Your task to perform on an android device: remove spam from my inbox in the gmail app Image 0: 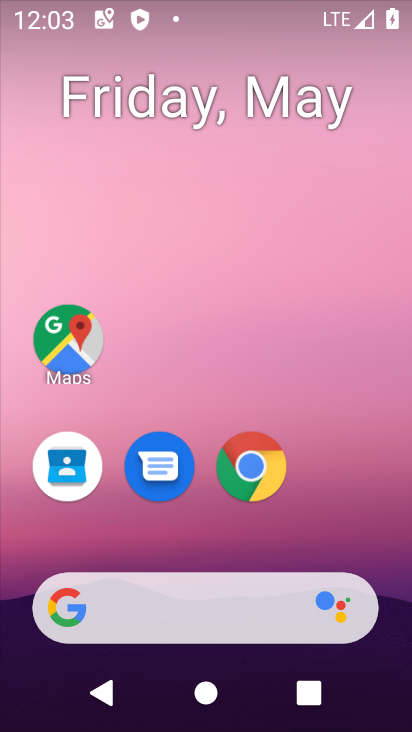
Step 0: drag from (287, 530) to (246, 221)
Your task to perform on an android device: remove spam from my inbox in the gmail app Image 1: 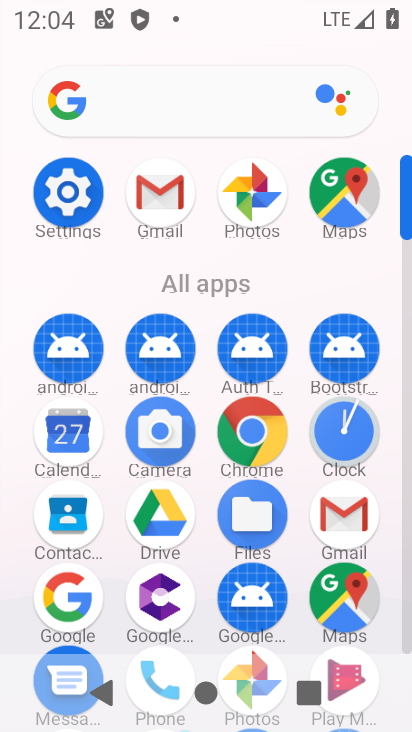
Step 1: click (343, 529)
Your task to perform on an android device: remove spam from my inbox in the gmail app Image 2: 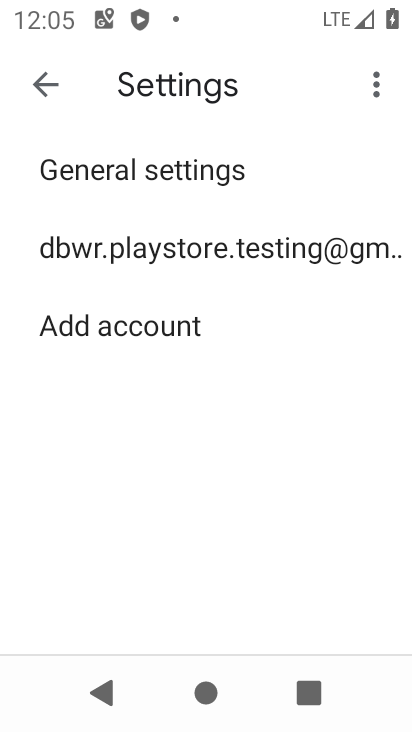
Step 2: click (50, 96)
Your task to perform on an android device: remove spam from my inbox in the gmail app Image 3: 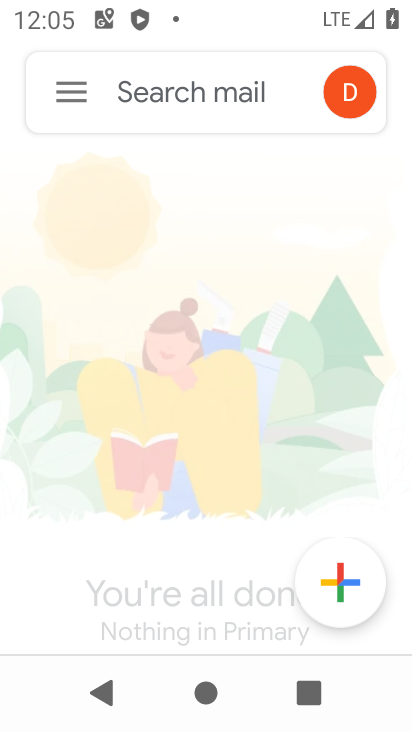
Step 3: click (56, 112)
Your task to perform on an android device: remove spam from my inbox in the gmail app Image 4: 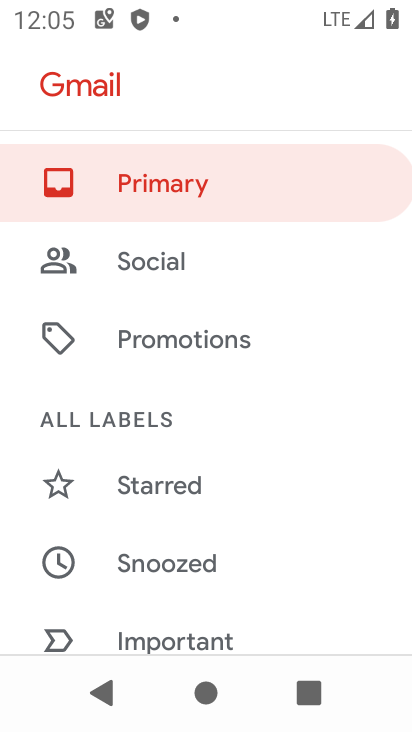
Step 4: drag from (205, 568) to (209, 148)
Your task to perform on an android device: remove spam from my inbox in the gmail app Image 5: 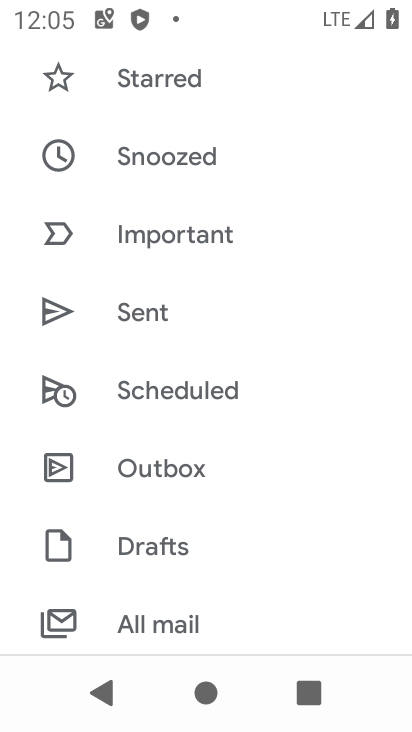
Step 5: drag from (215, 548) to (205, 147)
Your task to perform on an android device: remove spam from my inbox in the gmail app Image 6: 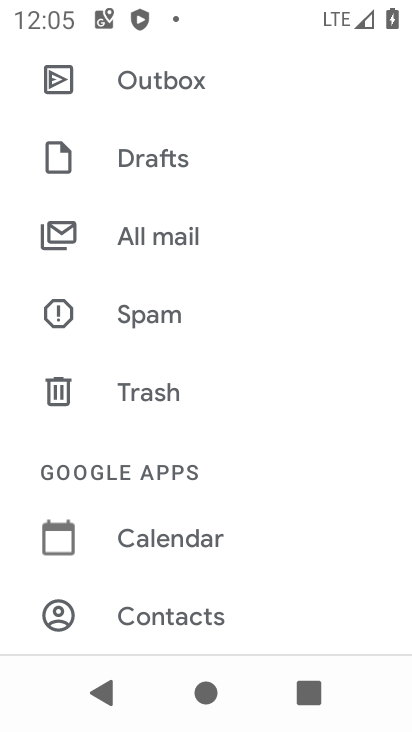
Step 6: drag from (252, 545) to (249, 186)
Your task to perform on an android device: remove spam from my inbox in the gmail app Image 7: 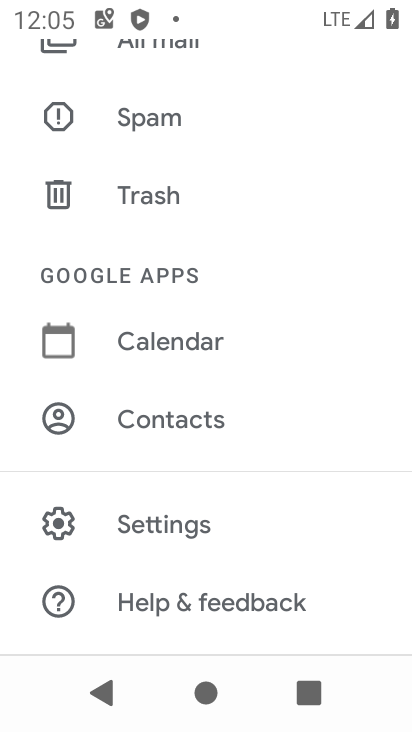
Step 7: click (158, 133)
Your task to perform on an android device: remove spam from my inbox in the gmail app Image 8: 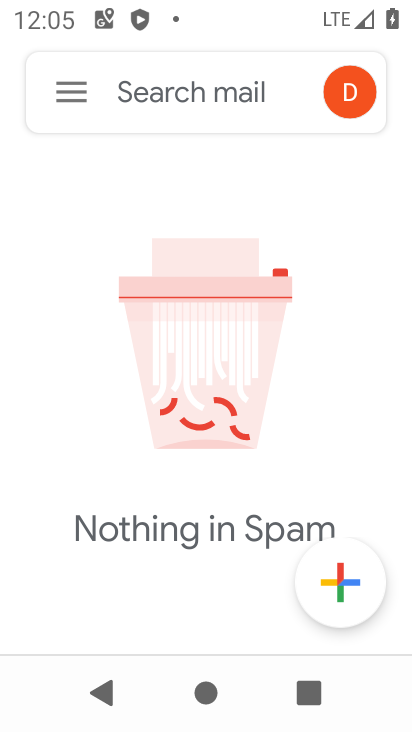
Step 8: task complete